Your task to perform on an android device: Go to network settings Image 0: 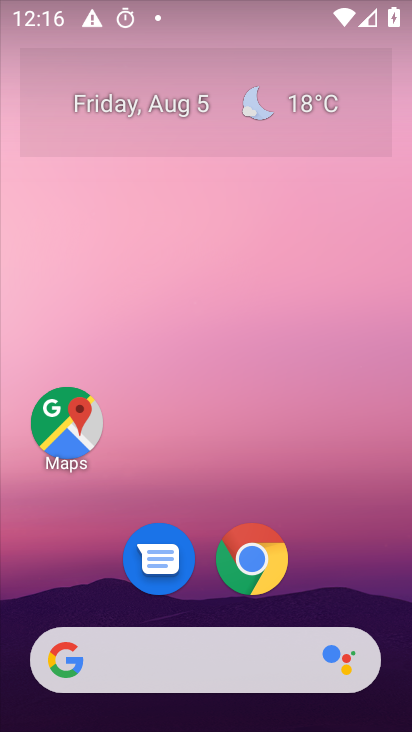
Step 0: drag from (61, 707) to (220, 401)
Your task to perform on an android device: Go to network settings Image 1: 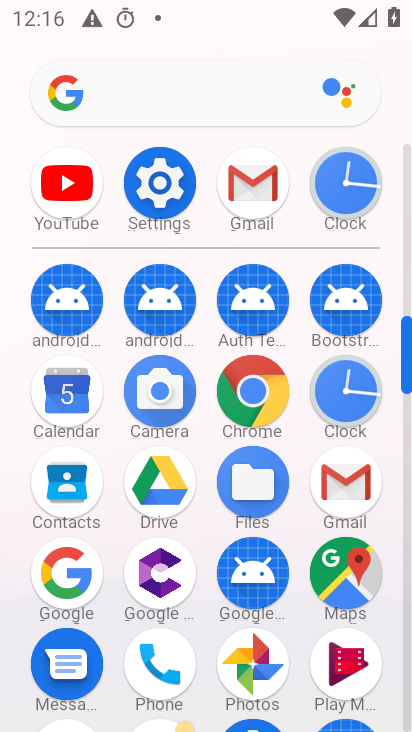
Step 1: click (154, 184)
Your task to perform on an android device: Go to network settings Image 2: 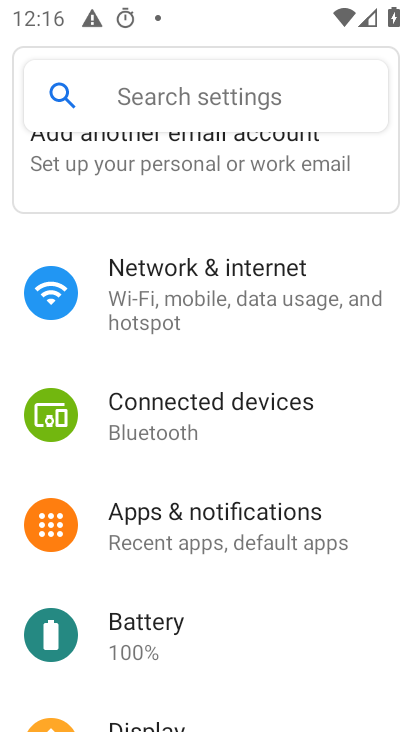
Step 2: click (189, 307)
Your task to perform on an android device: Go to network settings Image 3: 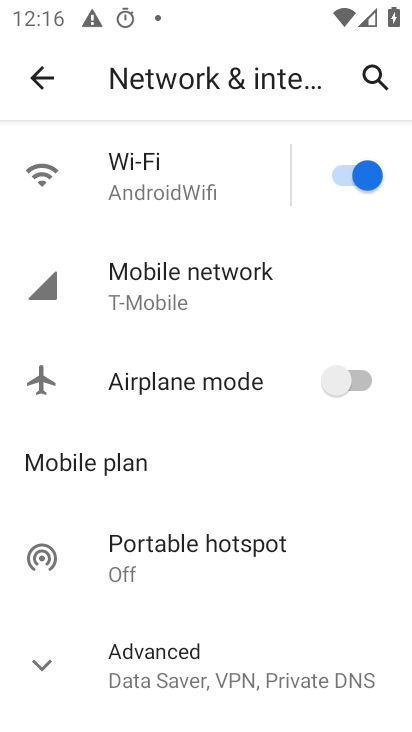
Step 3: task complete